Your task to perform on an android device: Open Google Chrome Image 0: 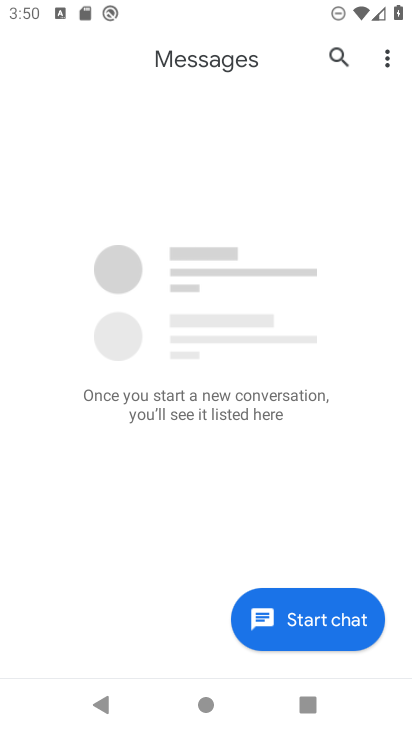
Step 0: press home button
Your task to perform on an android device: Open Google Chrome Image 1: 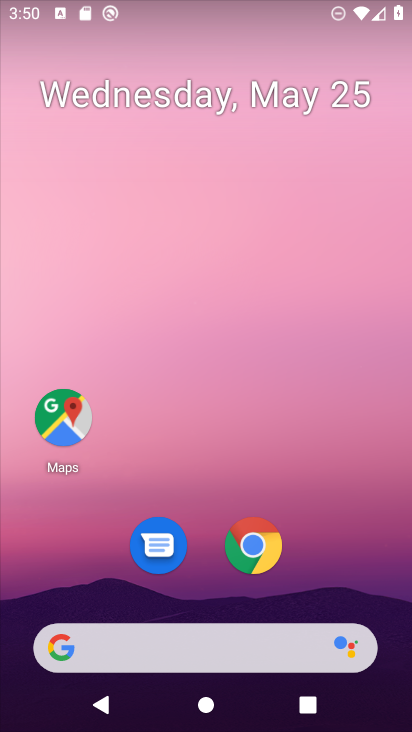
Step 1: click (268, 553)
Your task to perform on an android device: Open Google Chrome Image 2: 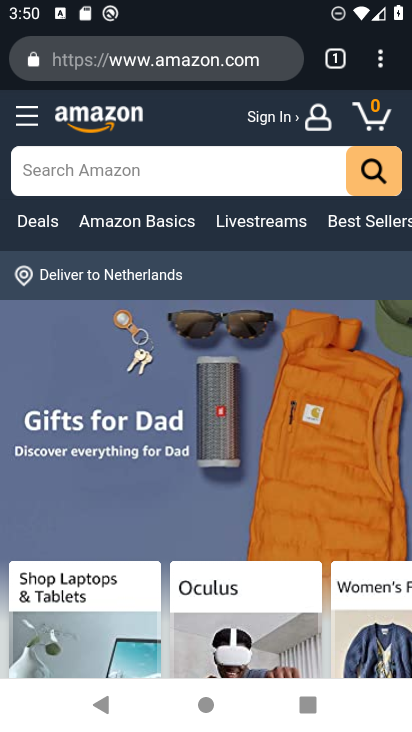
Step 2: task complete